Your task to perform on an android device: Open Google Chrome and click the shortcut for Amazon.com Image 0: 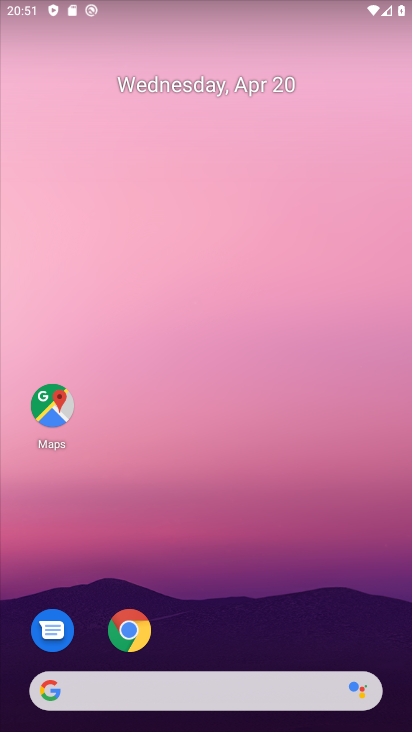
Step 0: click (127, 625)
Your task to perform on an android device: Open Google Chrome and click the shortcut for Amazon.com Image 1: 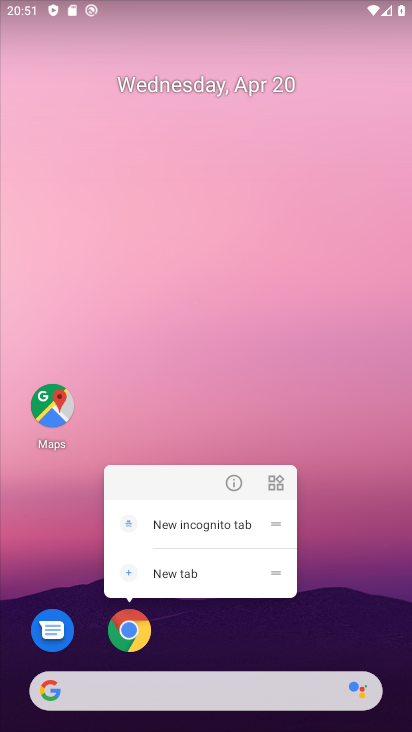
Step 1: click (127, 625)
Your task to perform on an android device: Open Google Chrome and click the shortcut for Amazon.com Image 2: 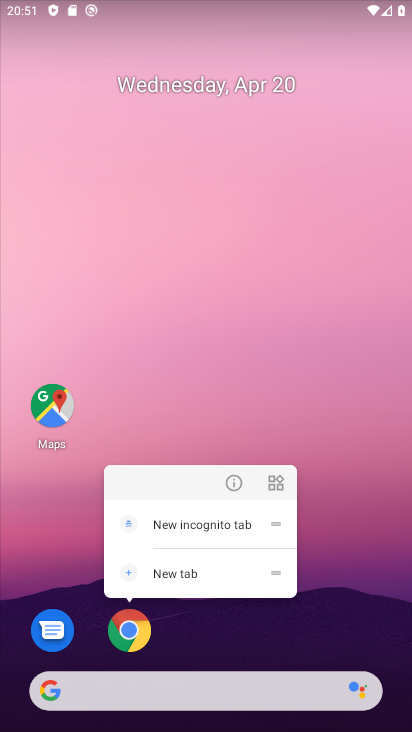
Step 2: click (128, 626)
Your task to perform on an android device: Open Google Chrome and click the shortcut for Amazon.com Image 3: 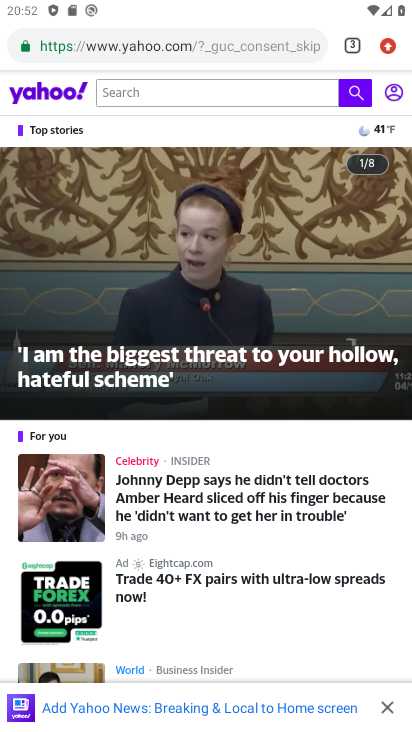
Step 3: click (350, 42)
Your task to perform on an android device: Open Google Chrome and click the shortcut for Amazon.com Image 4: 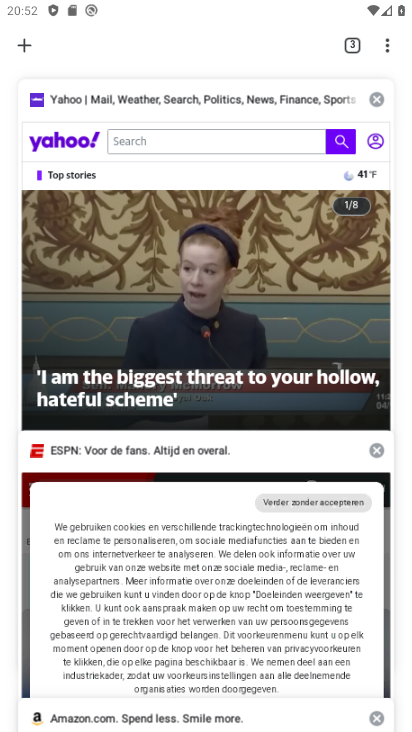
Step 4: click (360, 42)
Your task to perform on an android device: Open Google Chrome and click the shortcut for Amazon.com Image 5: 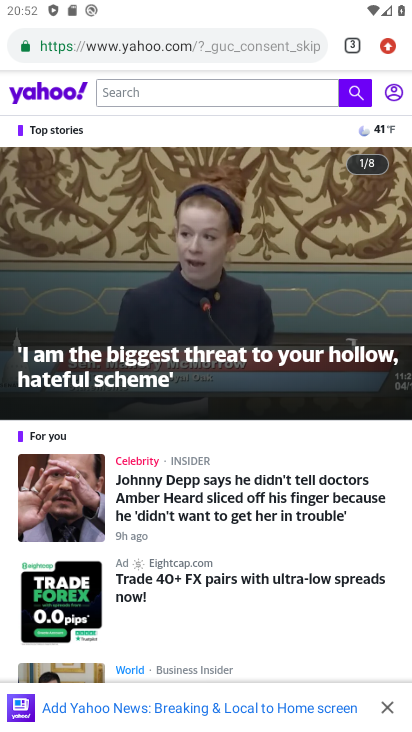
Step 5: click (360, 42)
Your task to perform on an android device: Open Google Chrome and click the shortcut for Amazon.com Image 6: 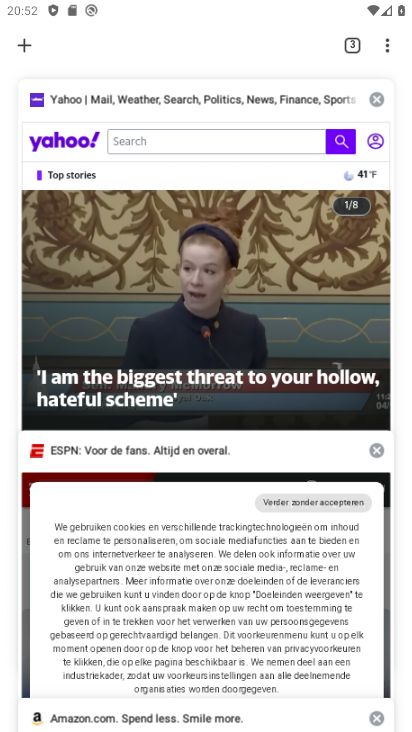
Step 6: click (166, 716)
Your task to perform on an android device: Open Google Chrome and click the shortcut for Amazon.com Image 7: 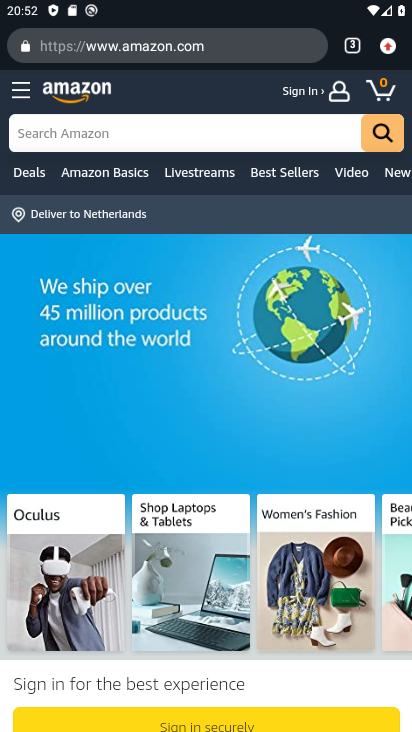
Step 7: task complete